Your task to perform on an android device: toggle improve location accuracy Image 0: 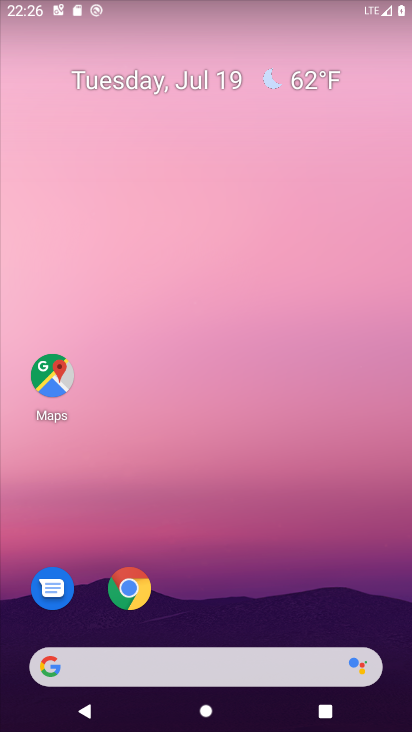
Step 0: drag from (219, 347) to (223, 162)
Your task to perform on an android device: toggle improve location accuracy Image 1: 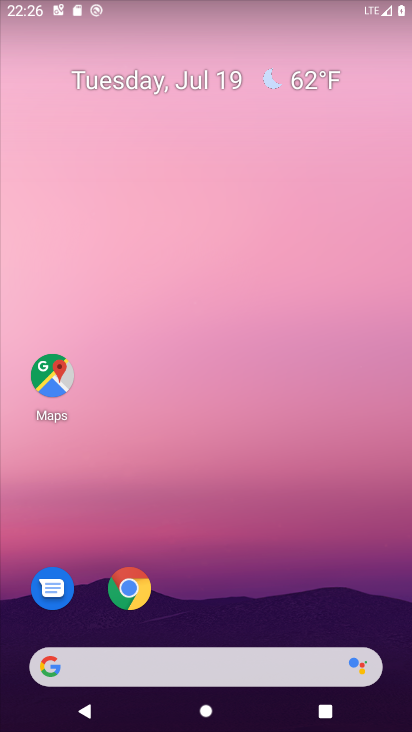
Step 1: drag from (198, 602) to (214, 142)
Your task to perform on an android device: toggle improve location accuracy Image 2: 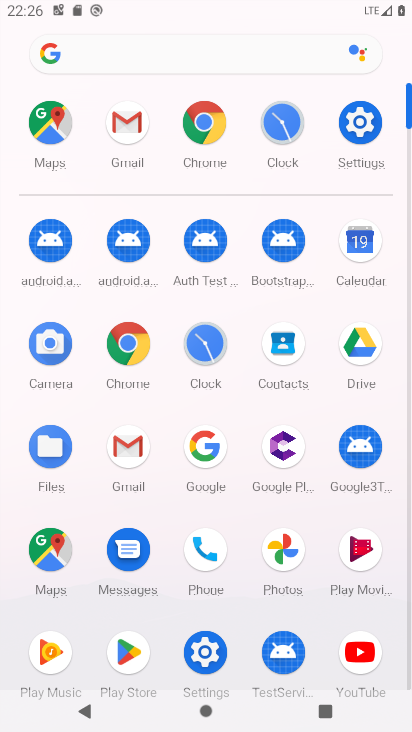
Step 2: click (359, 127)
Your task to perform on an android device: toggle improve location accuracy Image 3: 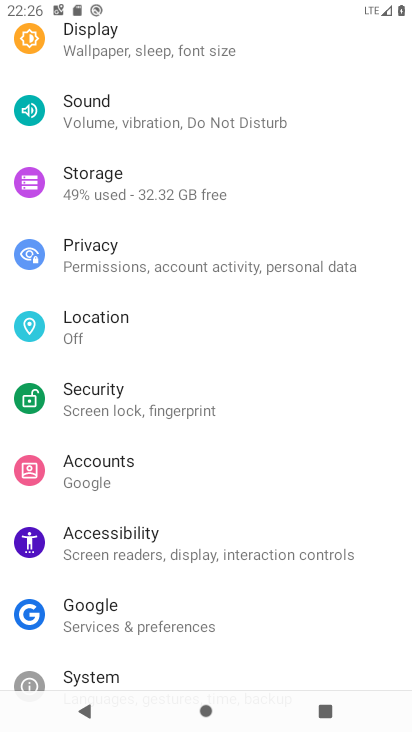
Step 3: click (105, 340)
Your task to perform on an android device: toggle improve location accuracy Image 4: 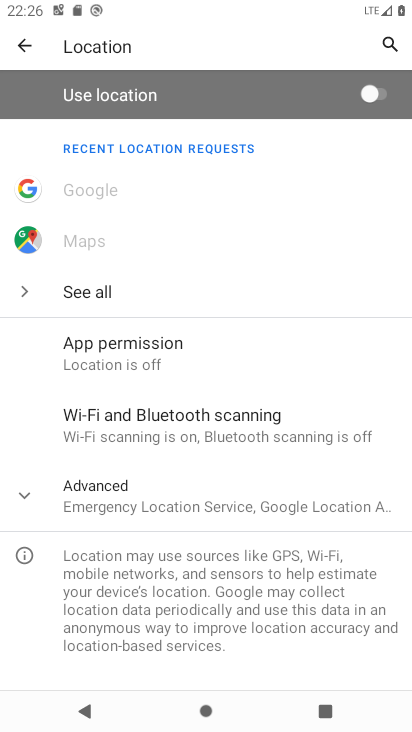
Step 4: click (134, 507)
Your task to perform on an android device: toggle improve location accuracy Image 5: 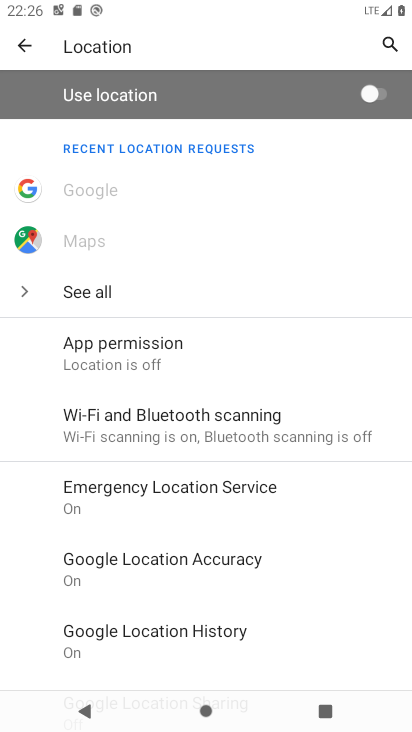
Step 5: click (161, 560)
Your task to perform on an android device: toggle improve location accuracy Image 6: 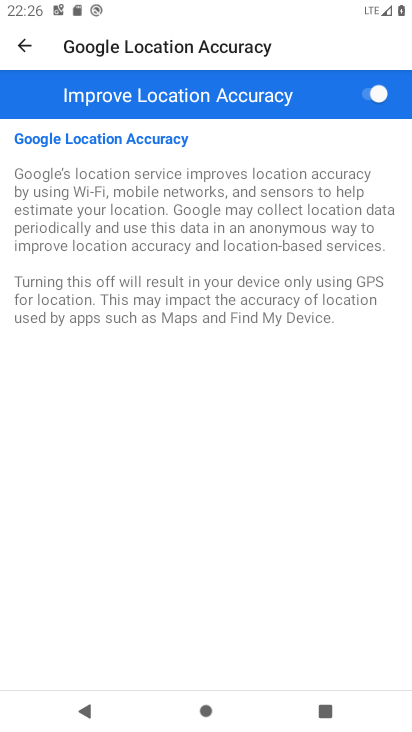
Step 6: click (369, 98)
Your task to perform on an android device: toggle improve location accuracy Image 7: 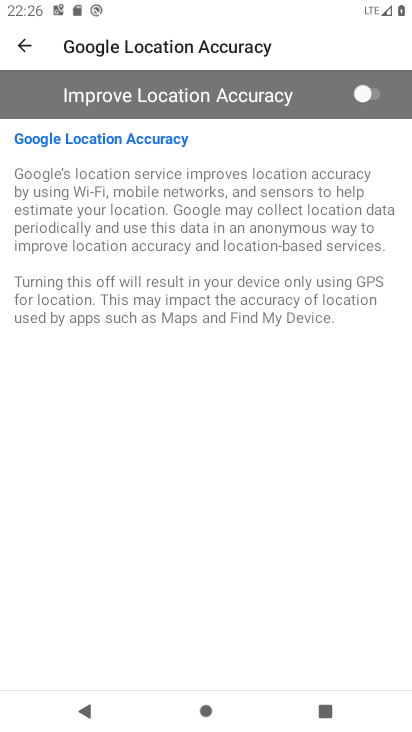
Step 7: task complete